Your task to perform on an android device: all mails in gmail Image 0: 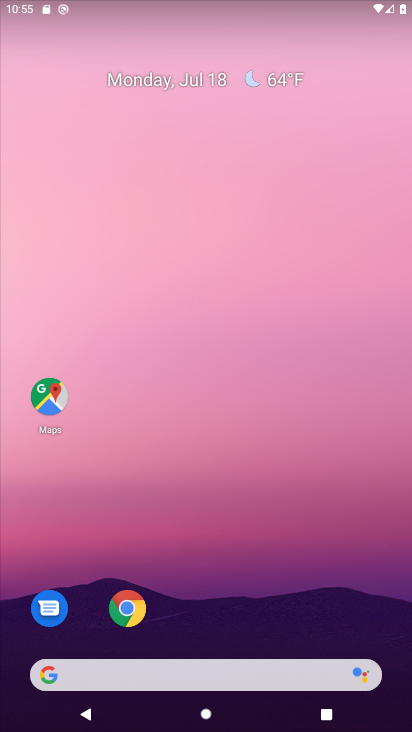
Step 0: drag from (18, 617) to (296, 61)
Your task to perform on an android device: all mails in gmail Image 1: 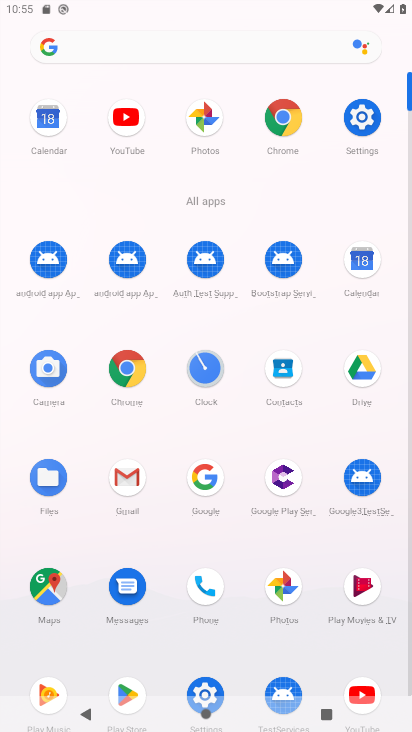
Step 1: click (120, 479)
Your task to perform on an android device: all mails in gmail Image 2: 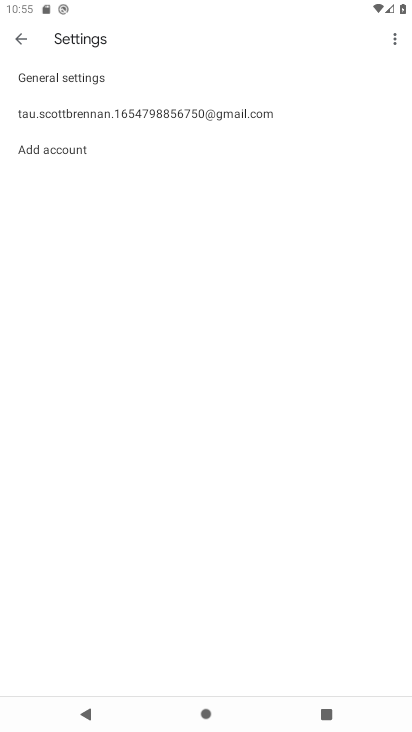
Step 2: click (287, 113)
Your task to perform on an android device: all mails in gmail Image 3: 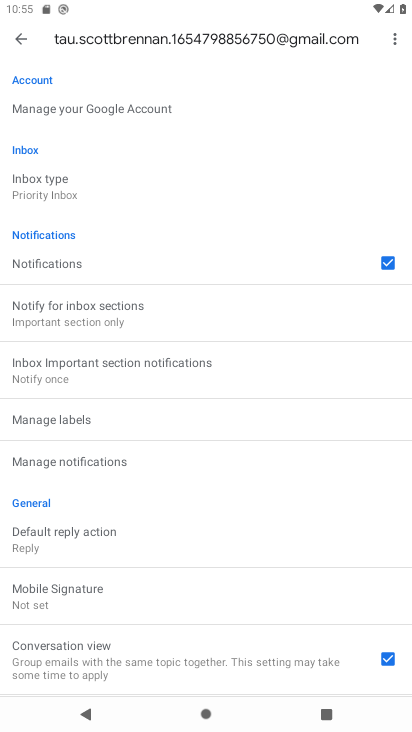
Step 3: click (23, 36)
Your task to perform on an android device: all mails in gmail Image 4: 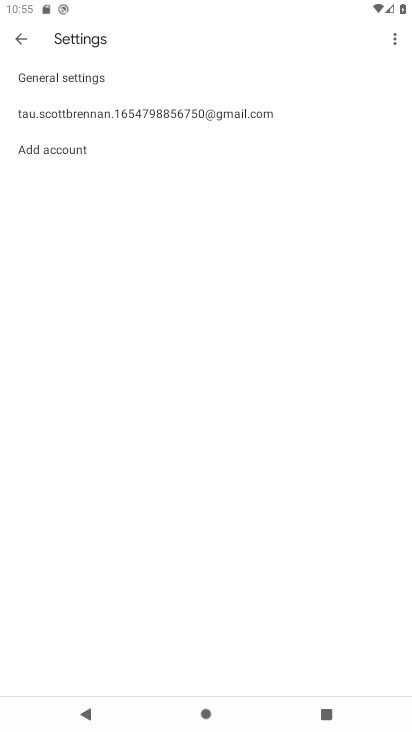
Step 4: click (24, 51)
Your task to perform on an android device: all mails in gmail Image 5: 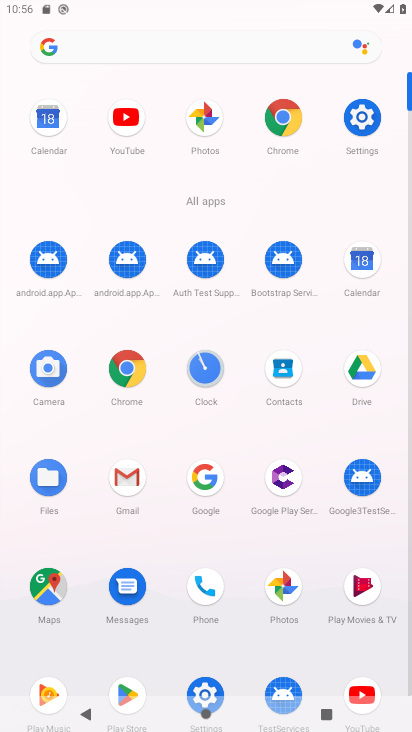
Step 5: click (145, 489)
Your task to perform on an android device: all mails in gmail Image 6: 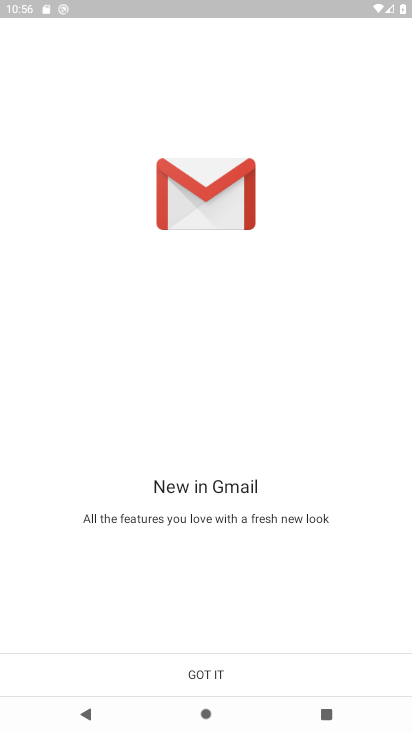
Step 6: click (149, 681)
Your task to perform on an android device: all mails in gmail Image 7: 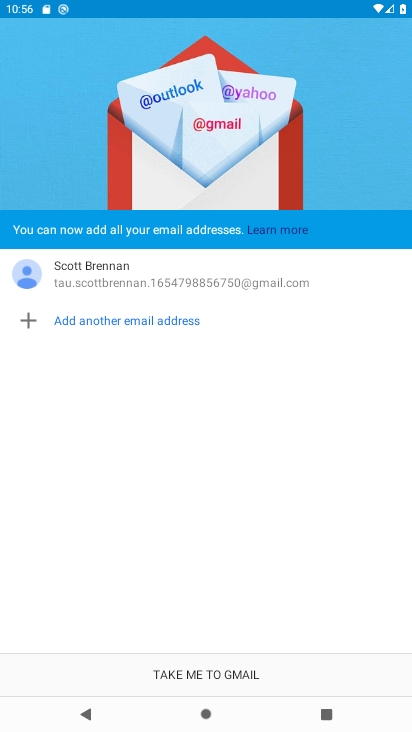
Step 7: click (150, 681)
Your task to perform on an android device: all mails in gmail Image 8: 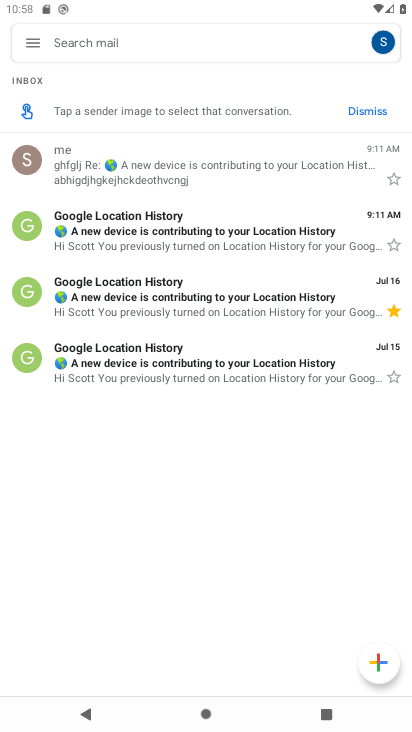
Step 8: task complete